Your task to perform on an android device: Toggle the flashlight Image 0: 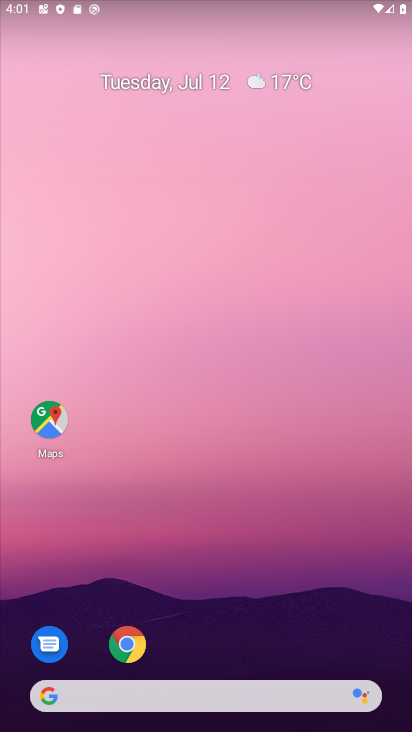
Step 0: click (264, 11)
Your task to perform on an android device: Toggle the flashlight Image 1: 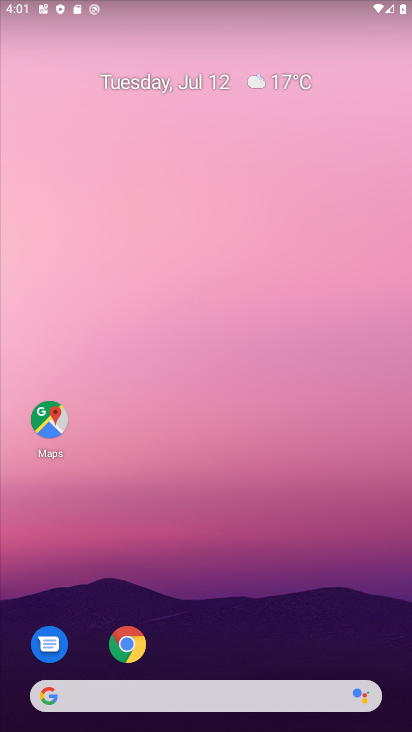
Step 1: drag from (264, 11) to (253, 572)
Your task to perform on an android device: Toggle the flashlight Image 2: 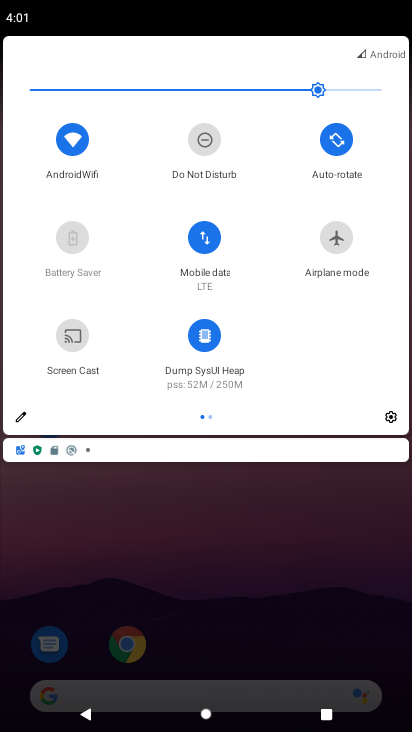
Step 2: click (26, 415)
Your task to perform on an android device: Toggle the flashlight Image 3: 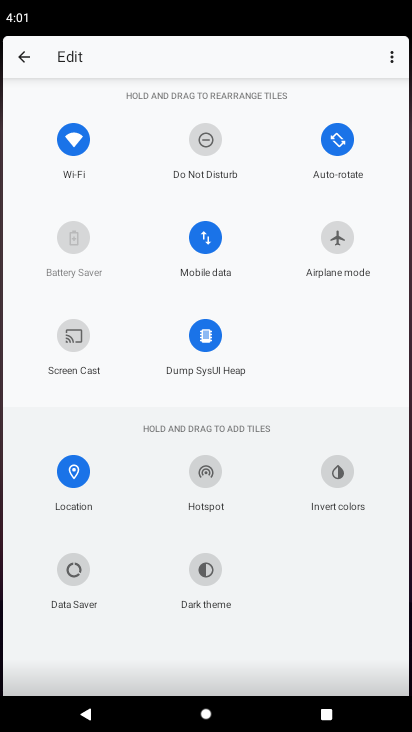
Step 3: task complete